Your task to perform on an android device: Go to location settings Image 0: 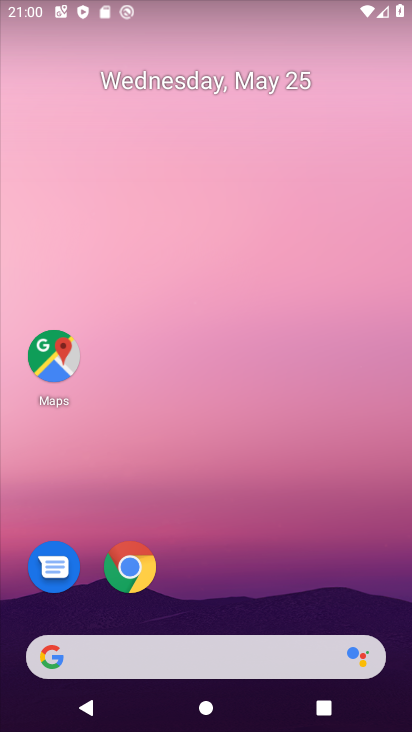
Step 0: drag from (283, 490) to (366, 58)
Your task to perform on an android device: Go to location settings Image 1: 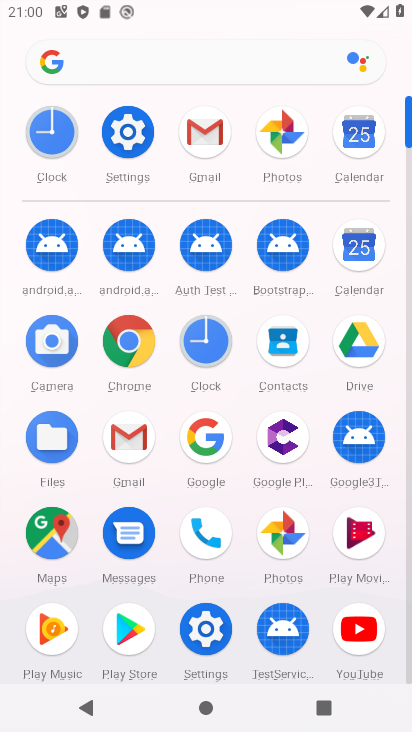
Step 1: click (133, 130)
Your task to perform on an android device: Go to location settings Image 2: 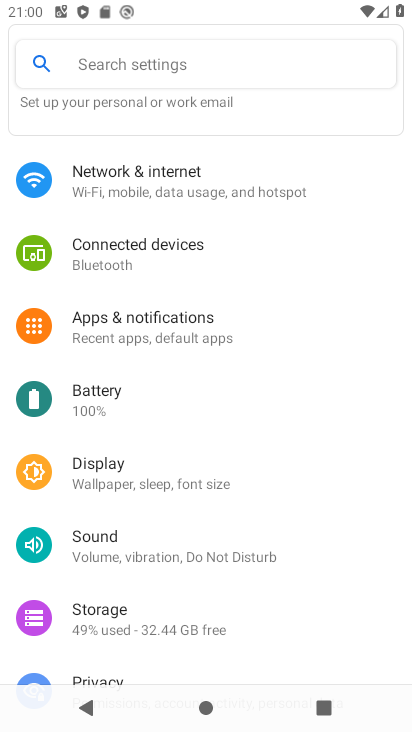
Step 2: drag from (178, 521) to (210, 294)
Your task to perform on an android device: Go to location settings Image 3: 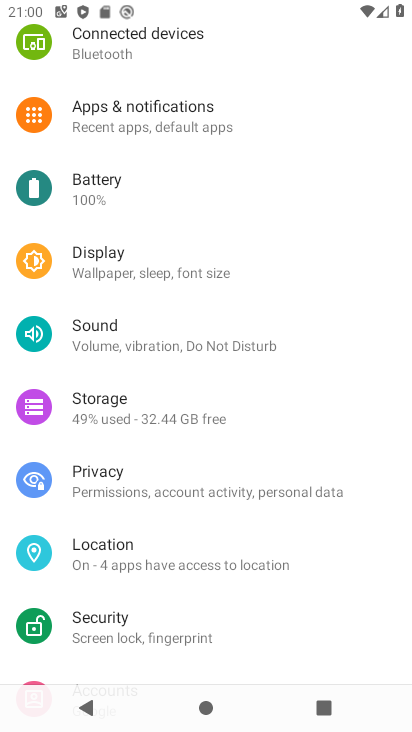
Step 3: click (151, 545)
Your task to perform on an android device: Go to location settings Image 4: 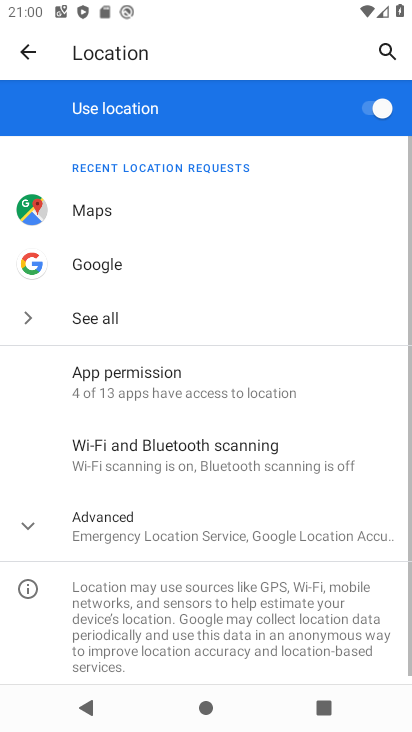
Step 4: task complete